Your task to perform on an android device: turn off smart reply in the gmail app Image 0: 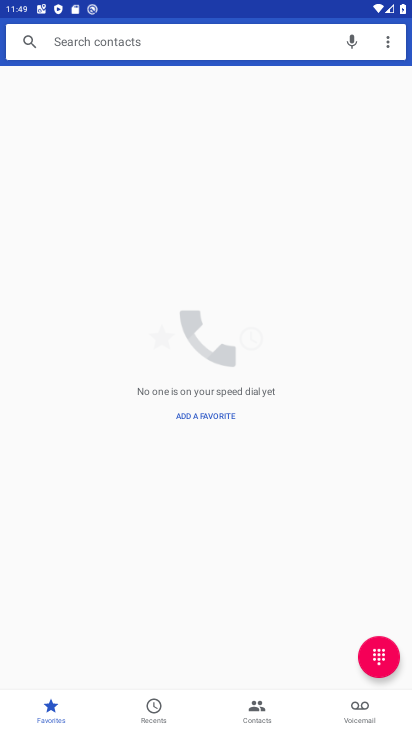
Step 0: press home button
Your task to perform on an android device: turn off smart reply in the gmail app Image 1: 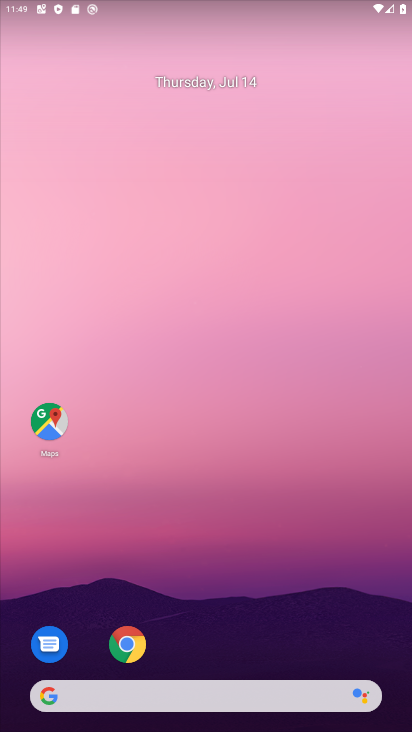
Step 1: drag from (180, 636) to (183, 177)
Your task to perform on an android device: turn off smart reply in the gmail app Image 2: 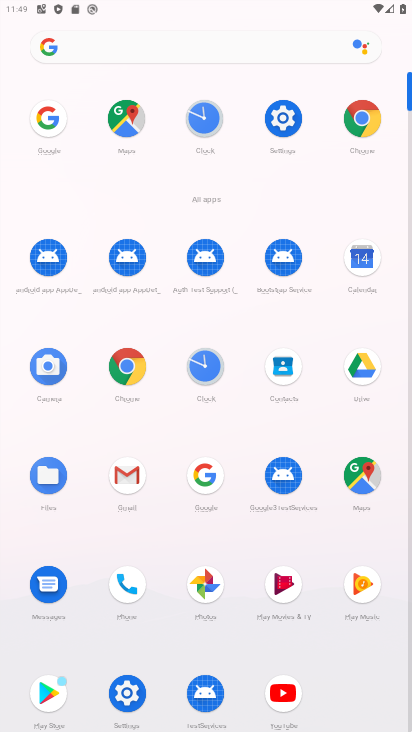
Step 2: click (137, 477)
Your task to perform on an android device: turn off smart reply in the gmail app Image 3: 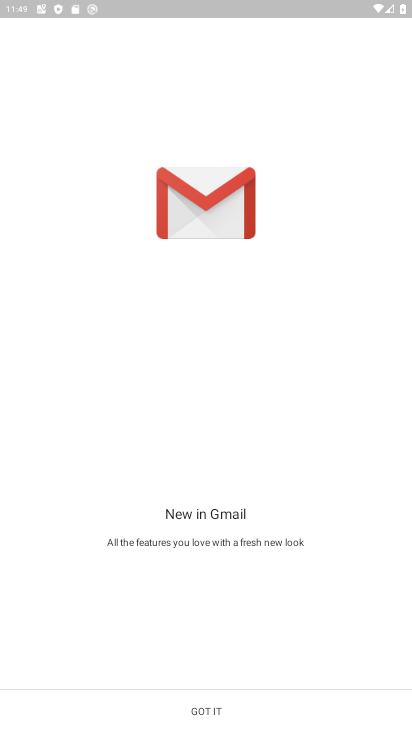
Step 3: click (212, 712)
Your task to perform on an android device: turn off smart reply in the gmail app Image 4: 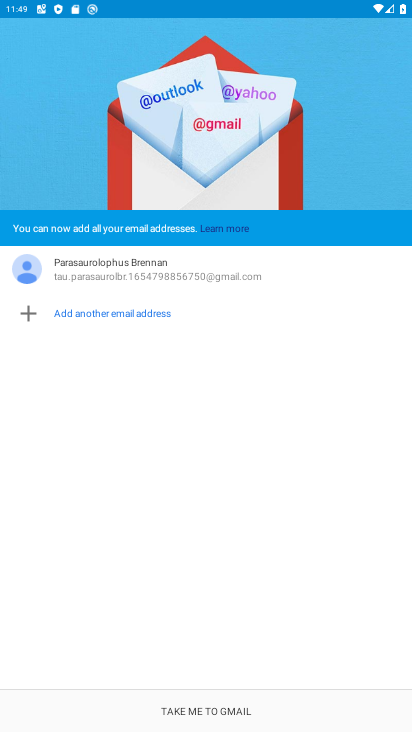
Step 4: click (213, 710)
Your task to perform on an android device: turn off smart reply in the gmail app Image 5: 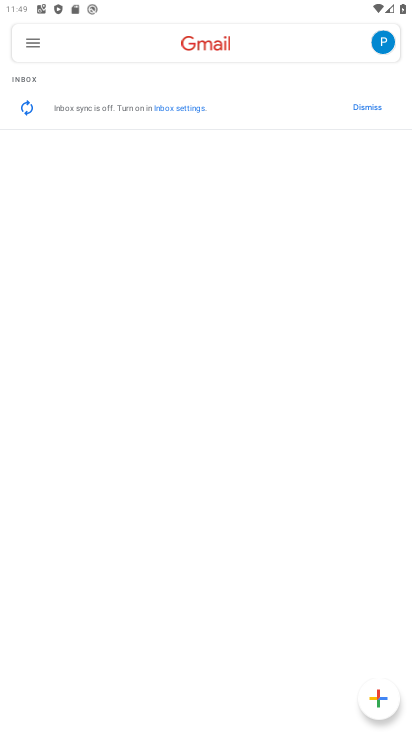
Step 5: click (35, 33)
Your task to perform on an android device: turn off smart reply in the gmail app Image 6: 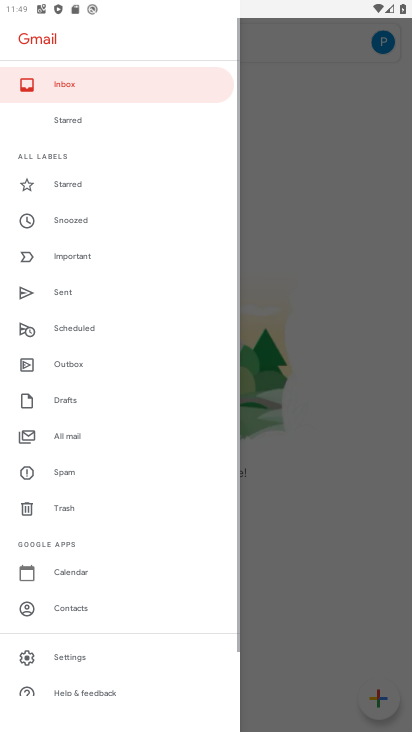
Step 6: click (60, 653)
Your task to perform on an android device: turn off smart reply in the gmail app Image 7: 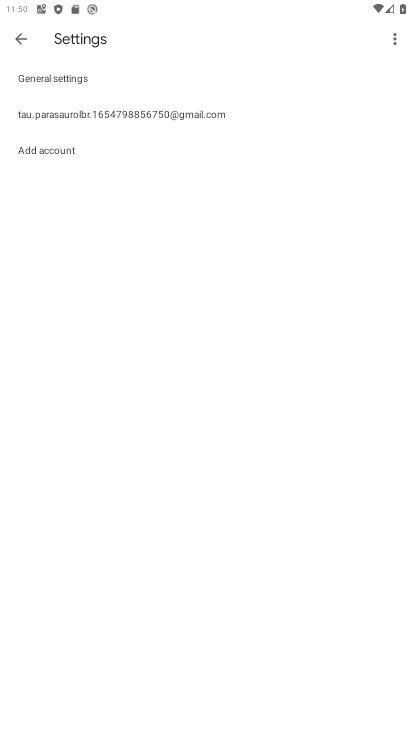
Step 7: click (79, 118)
Your task to perform on an android device: turn off smart reply in the gmail app Image 8: 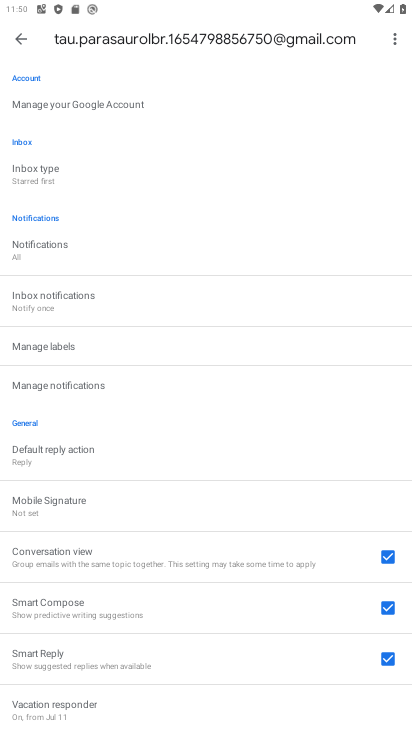
Step 8: drag from (53, 673) to (108, 343)
Your task to perform on an android device: turn off smart reply in the gmail app Image 9: 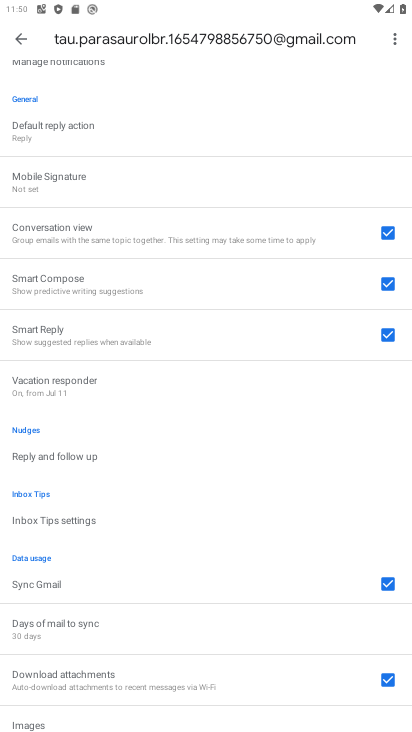
Step 9: click (392, 332)
Your task to perform on an android device: turn off smart reply in the gmail app Image 10: 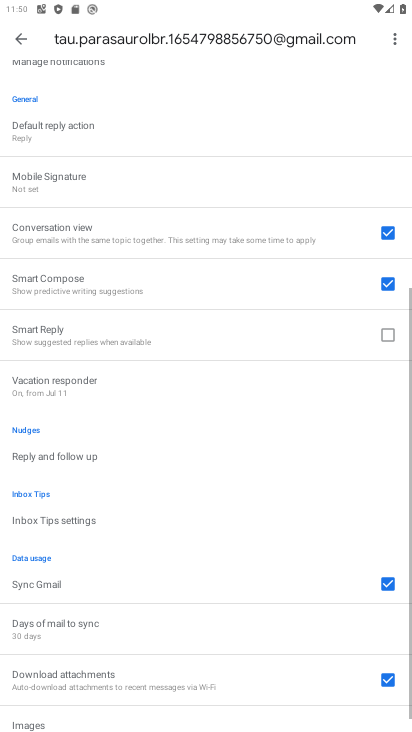
Step 10: task complete